Your task to perform on an android device: Clear all items from cart on newegg.com. Add usb-c to the cart on newegg.com, then select checkout. Image 0: 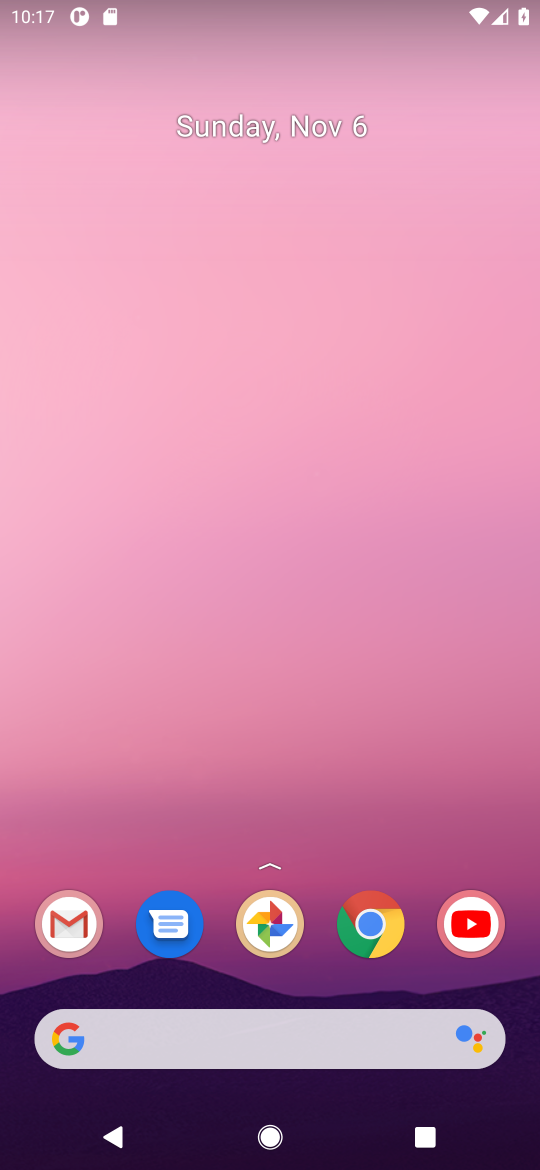
Step 0: drag from (324, 880) to (303, 122)
Your task to perform on an android device: Clear all items from cart on newegg.com. Add usb-c to the cart on newegg.com, then select checkout. Image 1: 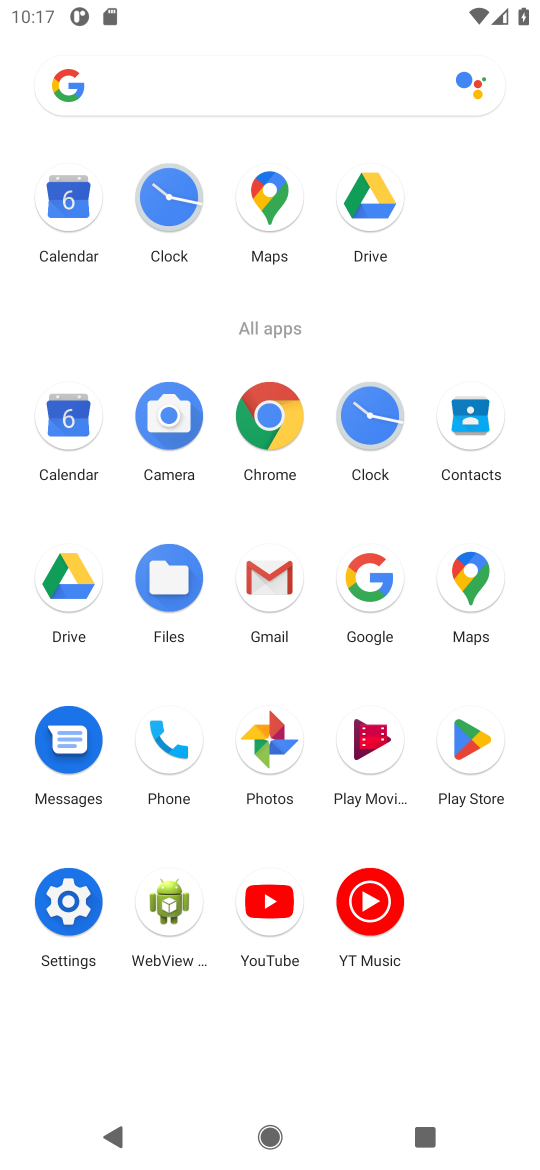
Step 1: click (261, 426)
Your task to perform on an android device: Clear all items from cart on newegg.com. Add usb-c to the cart on newegg.com, then select checkout. Image 2: 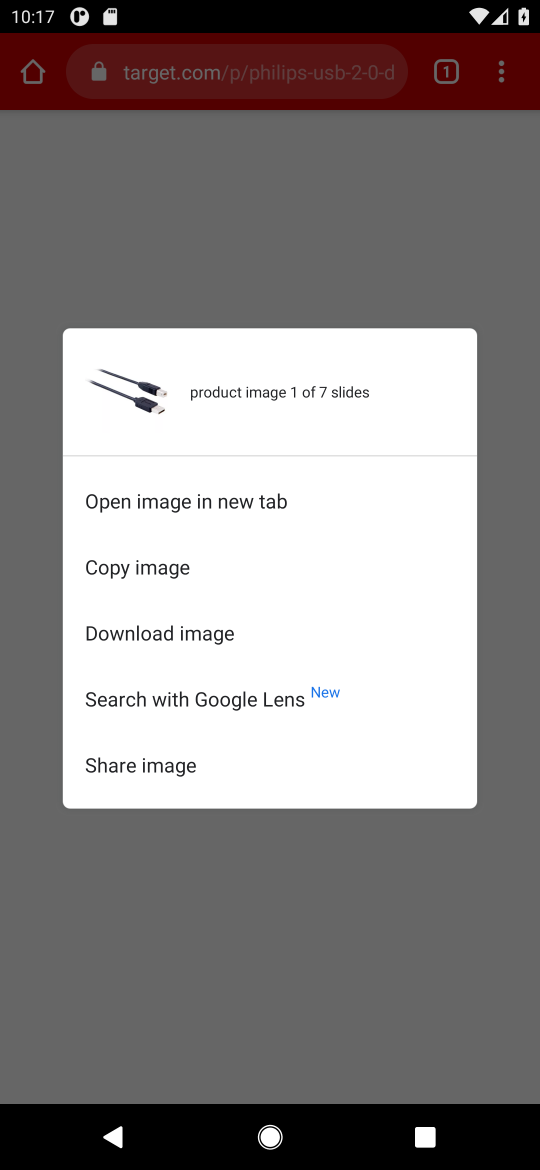
Step 2: click (308, 68)
Your task to perform on an android device: Clear all items from cart on newegg.com. Add usb-c to the cart on newegg.com, then select checkout. Image 3: 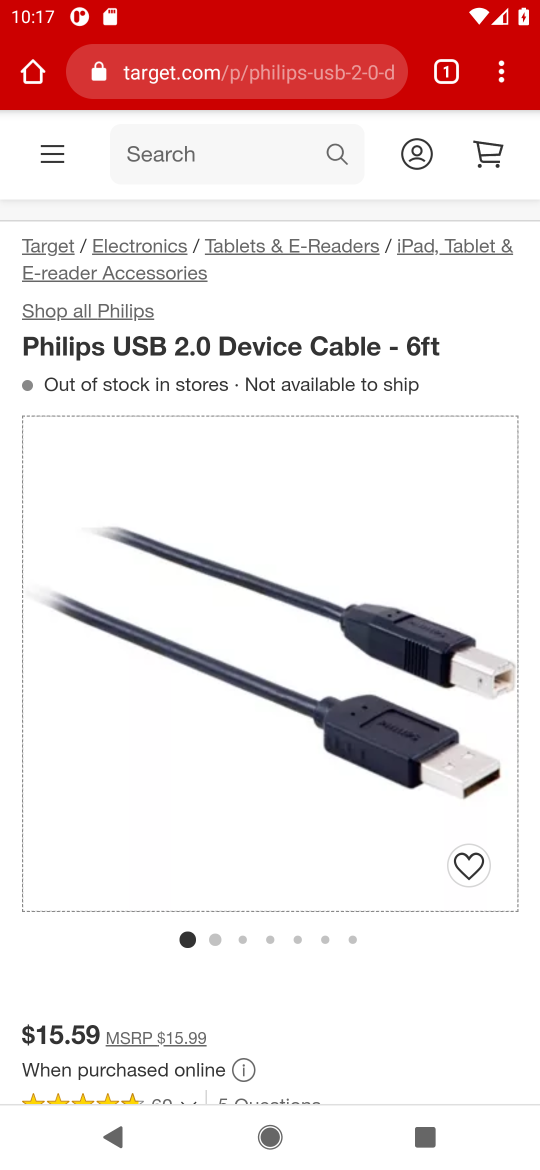
Step 3: click (308, 68)
Your task to perform on an android device: Clear all items from cart on newegg.com. Add usb-c to the cart on newegg.com, then select checkout. Image 4: 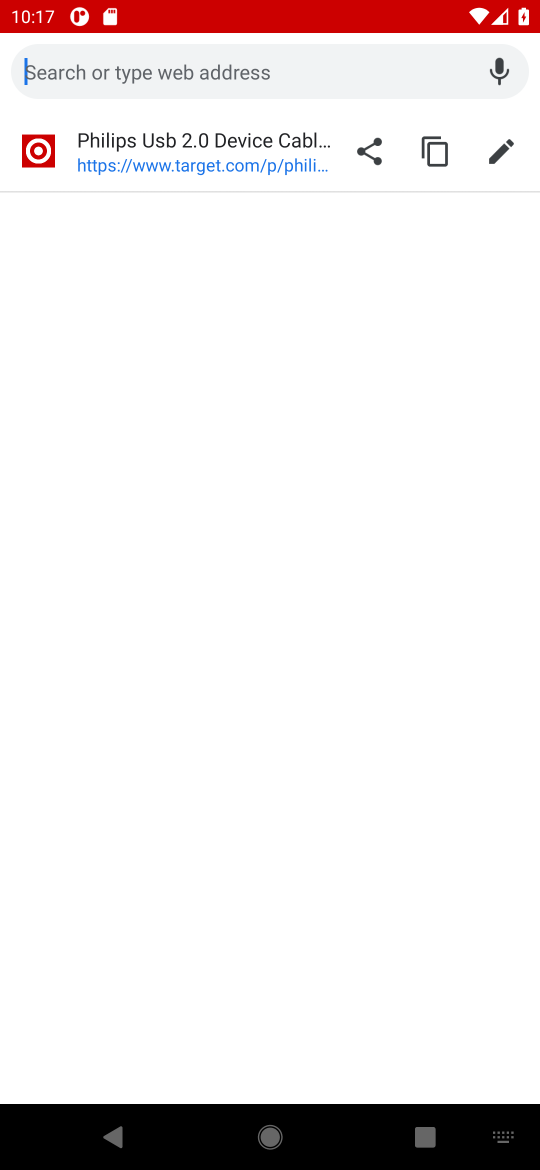
Step 4: type "newegg.com"
Your task to perform on an android device: Clear all items from cart on newegg.com. Add usb-c to the cart on newegg.com, then select checkout. Image 5: 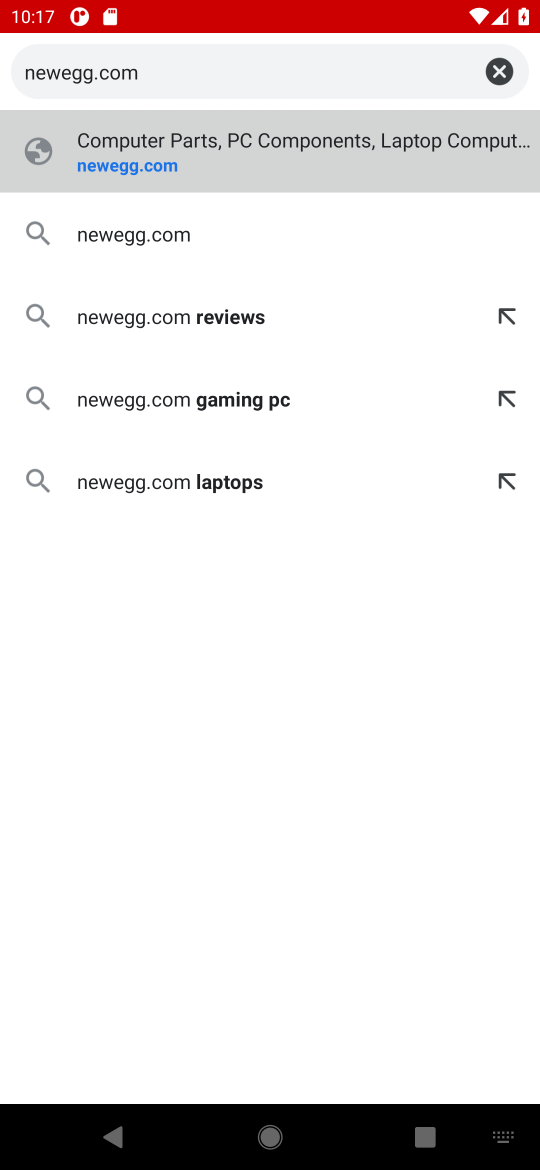
Step 5: press enter
Your task to perform on an android device: Clear all items from cart on newegg.com. Add usb-c to the cart on newegg.com, then select checkout. Image 6: 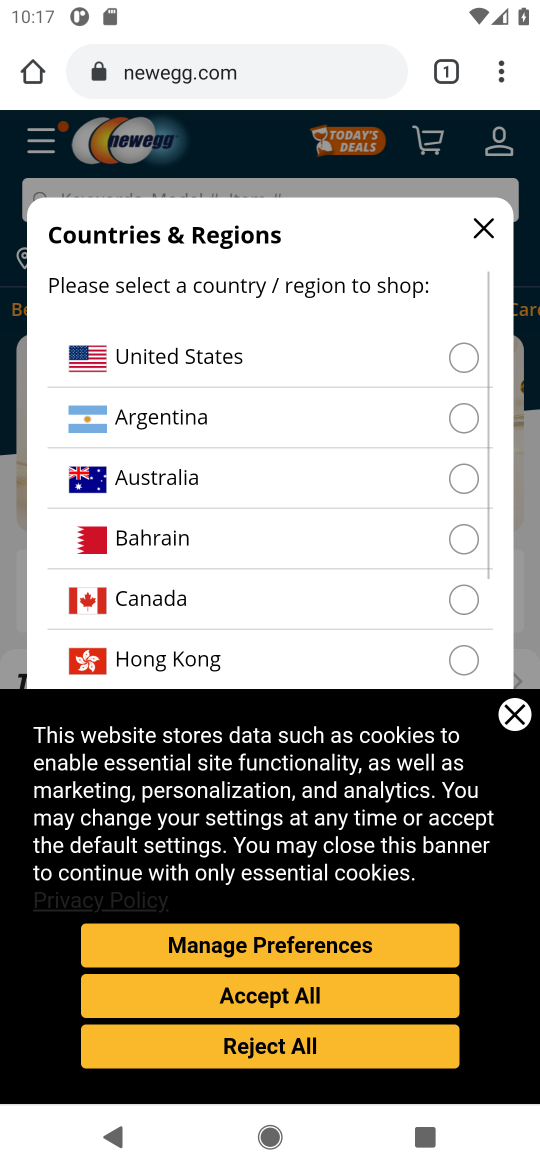
Step 6: click (479, 228)
Your task to perform on an android device: Clear all items from cart on newegg.com. Add usb-c to the cart on newegg.com, then select checkout. Image 7: 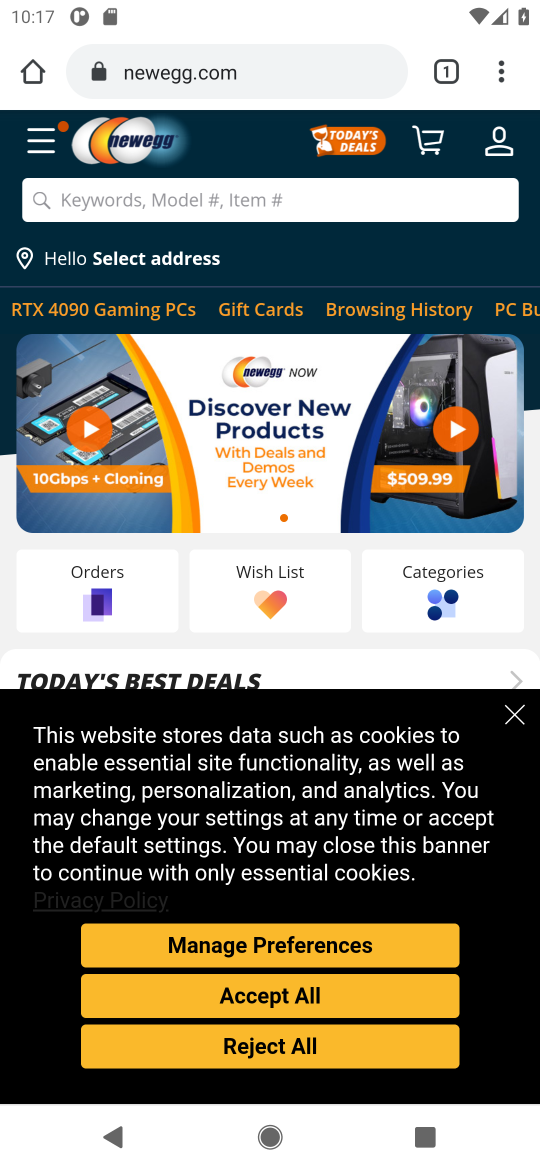
Step 7: click (434, 141)
Your task to perform on an android device: Clear all items from cart on newegg.com. Add usb-c to the cart on newegg.com, then select checkout. Image 8: 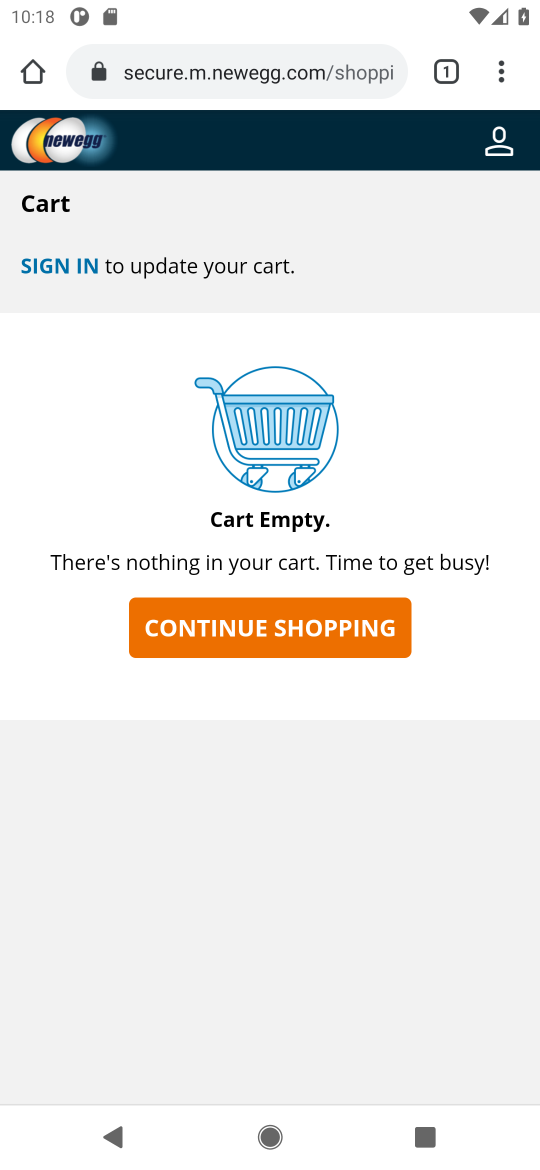
Step 8: click (261, 627)
Your task to perform on an android device: Clear all items from cart on newegg.com. Add usb-c to the cart on newegg.com, then select checkout. Image 9: 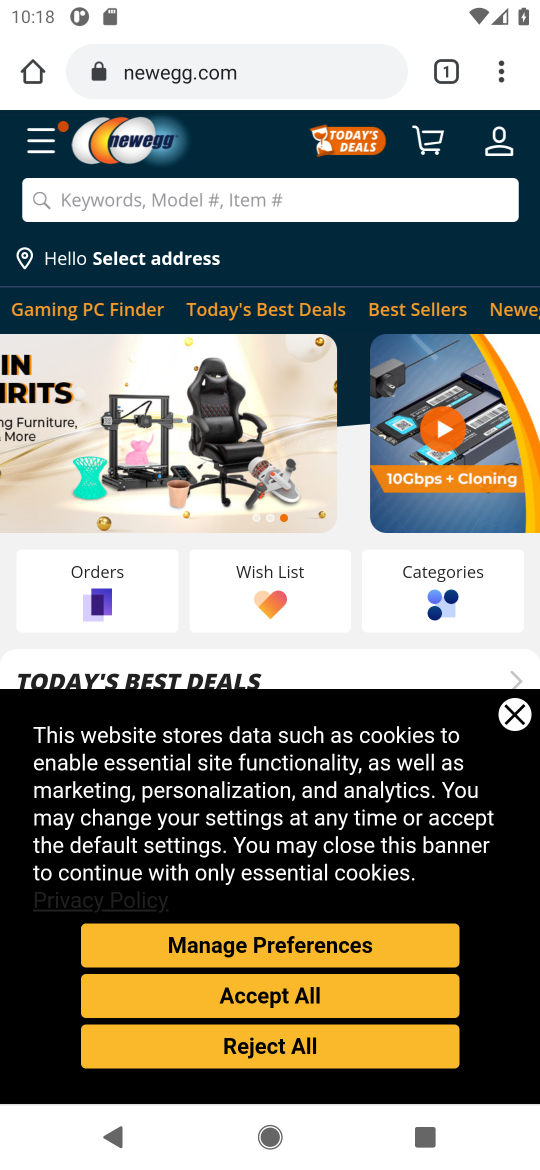
Step 9: click (398, 199)
Your task to perform on an android device: Clear all items from cart on newegg.com. Add usb-c to the cart on newegg.com, then select checkout. Image 10: 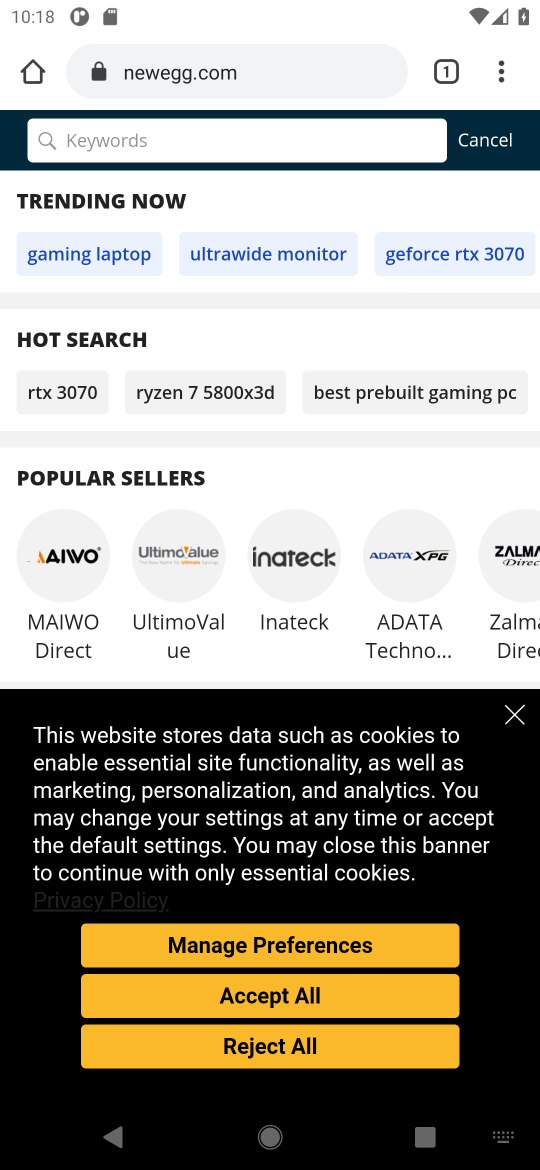
Step 10: type "usb-c"
Your task to perform on an android device: Clear all items from cart on newegg.com. Add usb-c to the cart on newegg.com, then select checkout. Image 11: 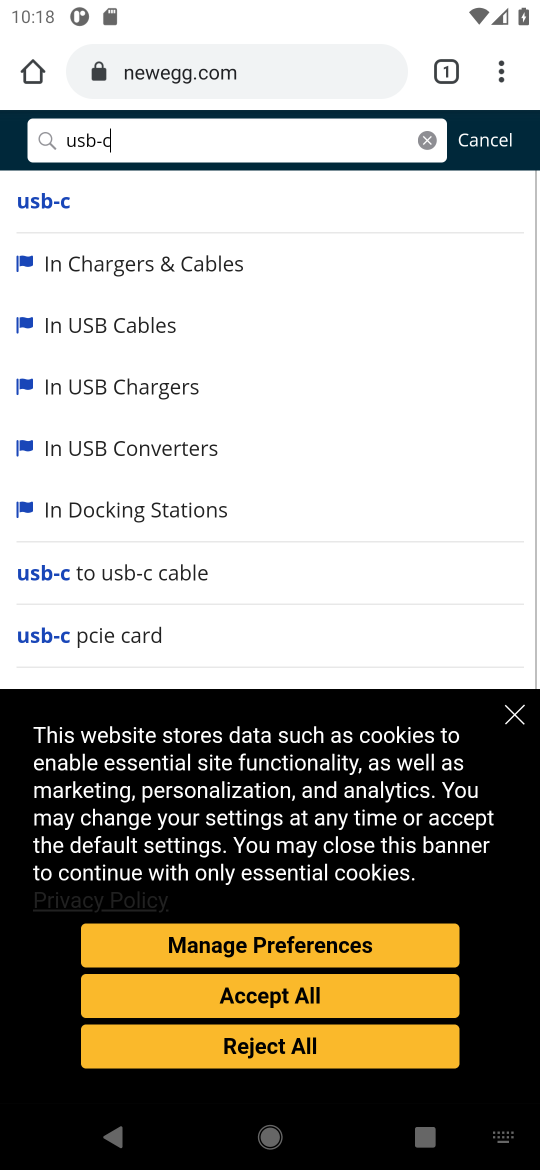
Step 11: press enter
Your task to perform on an android device: Clear all items from cart on newegg.com. Add usb-c to the cart on newegg.com, then select checkout. Image 12: 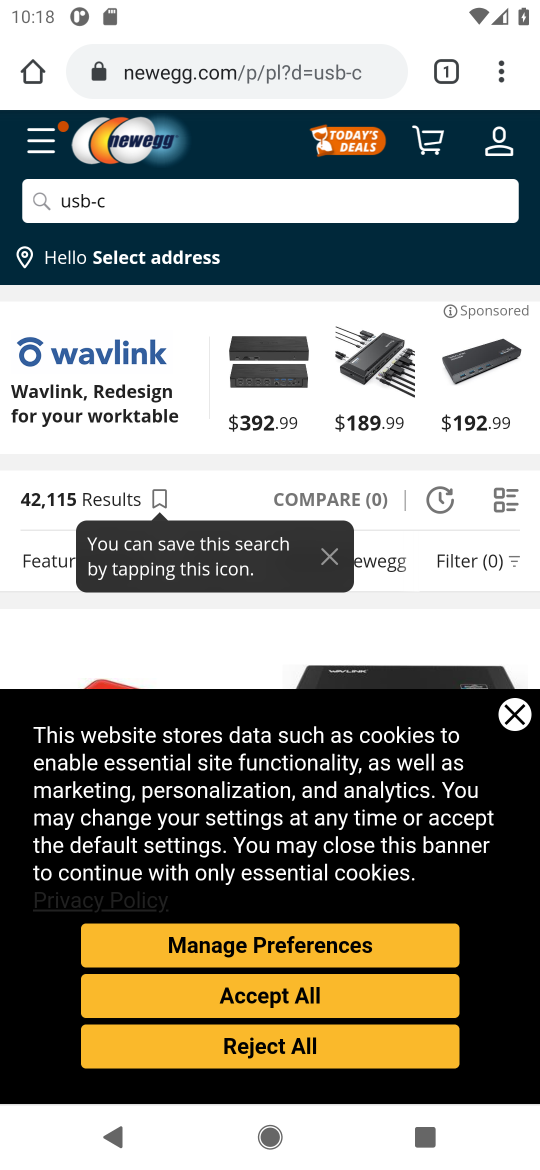
Step 12: click (325, 1001)
Your task to perform on an android device: Clear all items from cart on newegg.com. Add usb-c to the cart on newegg.com, then select checkout. Image 13: 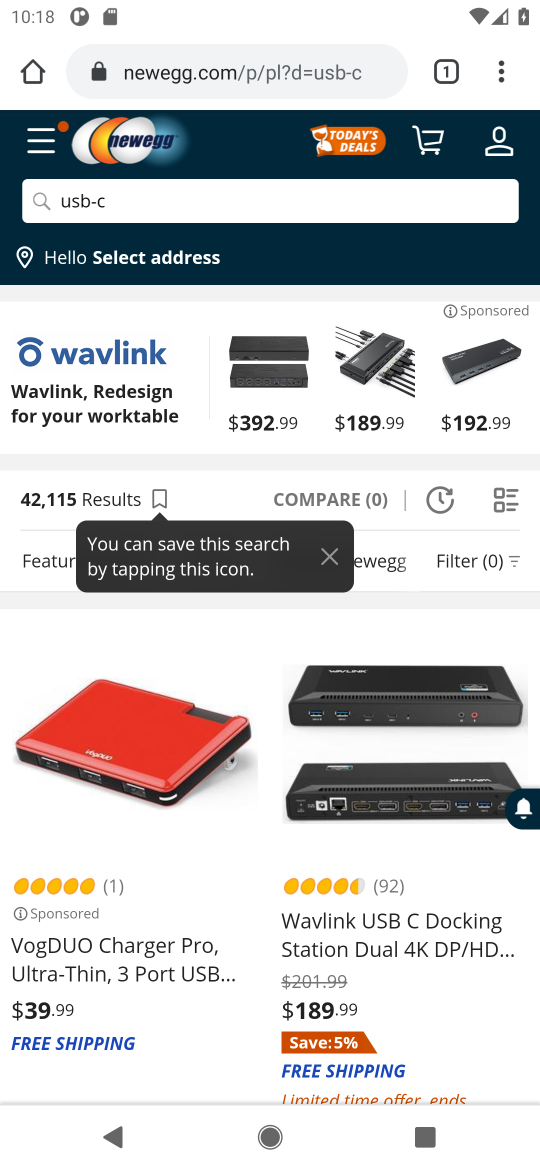
Step 13: drag from (215, 851) to (186, 600)
Your task to perform on an android device: Clear all items from cart on newegg.com. Add usb-c to the cart on newegg.com, then select checkout. Image 14: 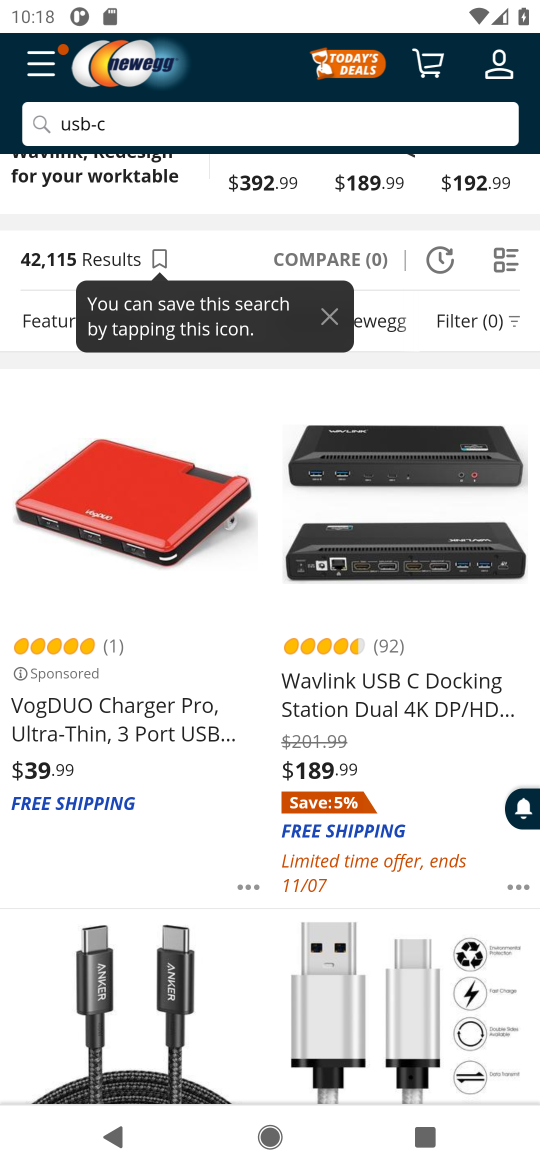
Step 14: click (405, 706)
Your task to perform on an android device: Clear all items from cart on newegg.com. Add usb-c to the cart on newegg.com, then select checkout. Image 15: 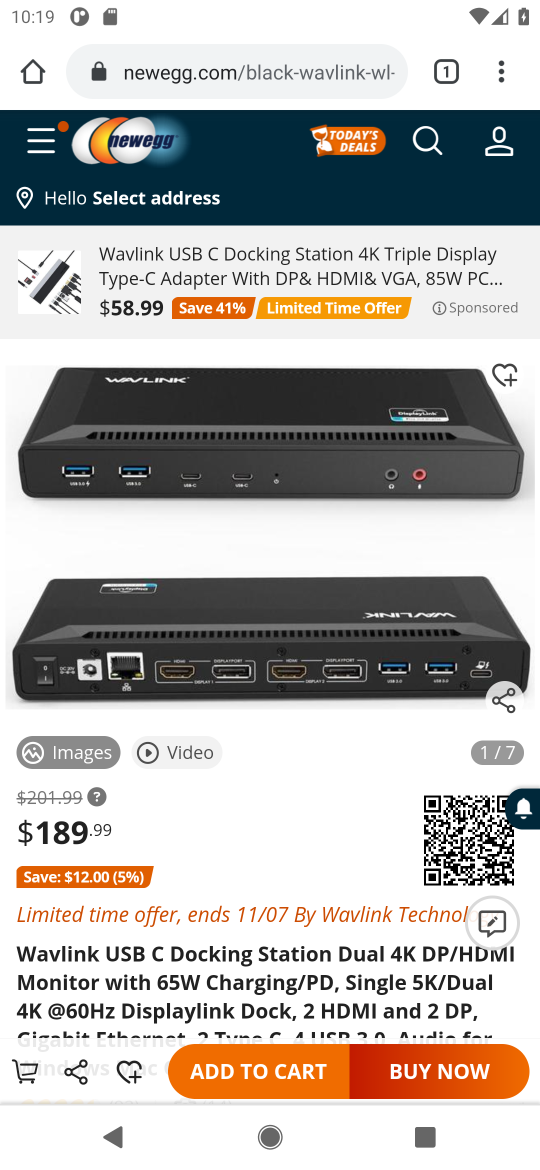
Step 15: click (259, 1078)
Your task to perform on an android device: Clear all items from cart on newegg.com. Add usb-c to the cart on newegg.com, then select checkout. Image 16: 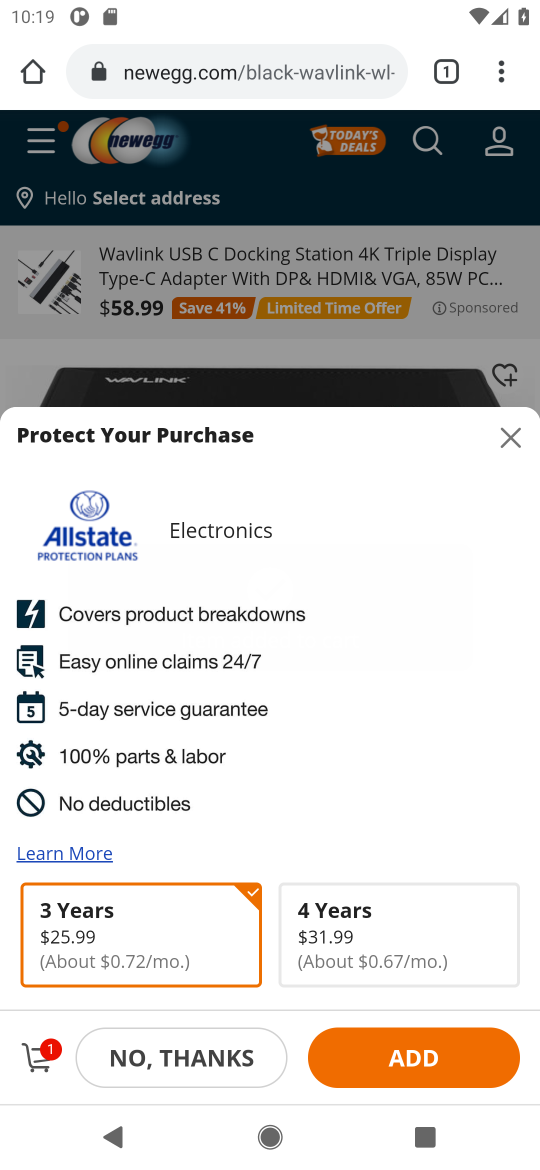
Step 16: click (31, 1070)
Your task to perform on an android device: Clear all items from cart on newegg.com. Add usb-c to the cart on newegg.com, then select checkout. Image 17: 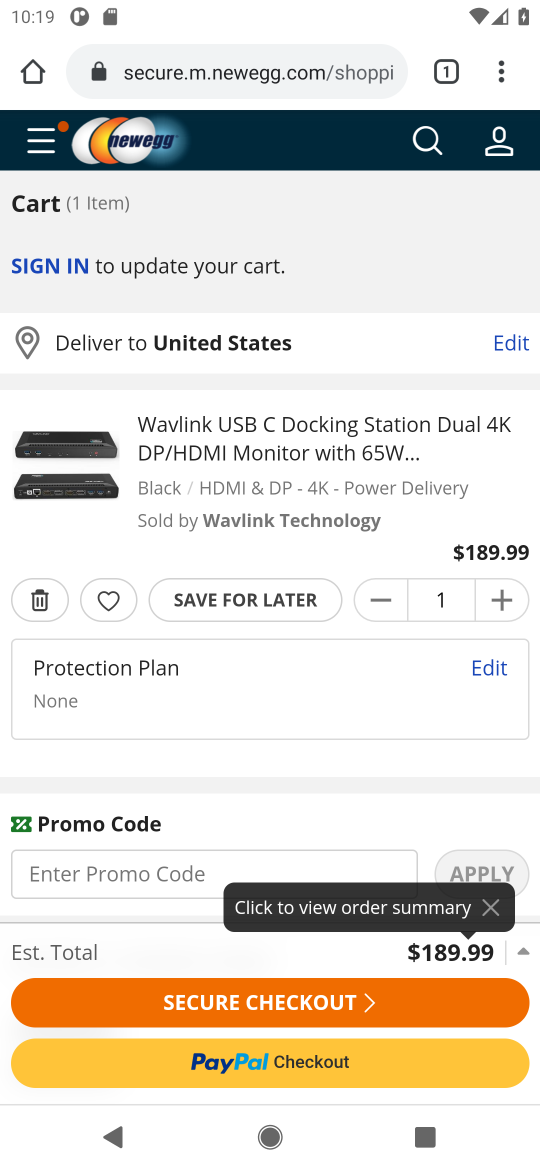
Step 17: click (304, 1011)
Your task to perform on an android device: Clear all items from cart on newegg.com. Add usb-c to the cart on newegg.com, then select checkout. Image 18: 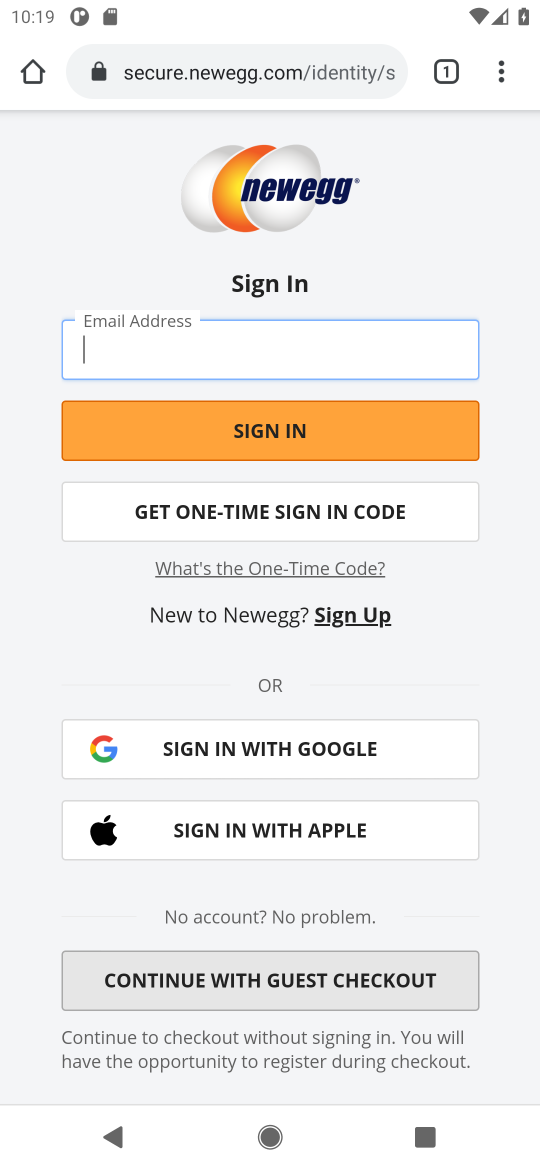
Step 18: task complete